Your task to perform on an android device: uninstall "VLC for Android" Image 0: 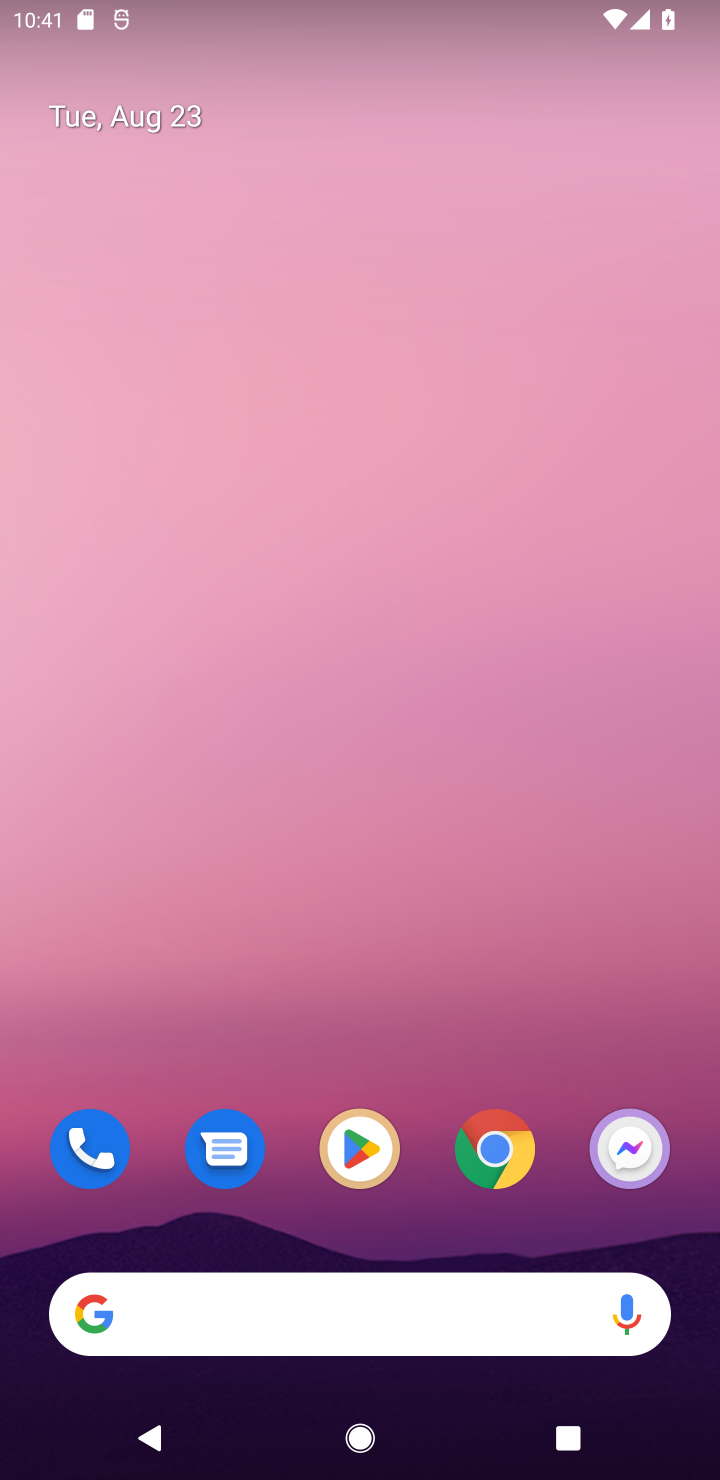
Step 0: drag from (273, 1245) to (241, 129)
Your task to perform on an android device: uninstall "VLC for Android" Image 1: 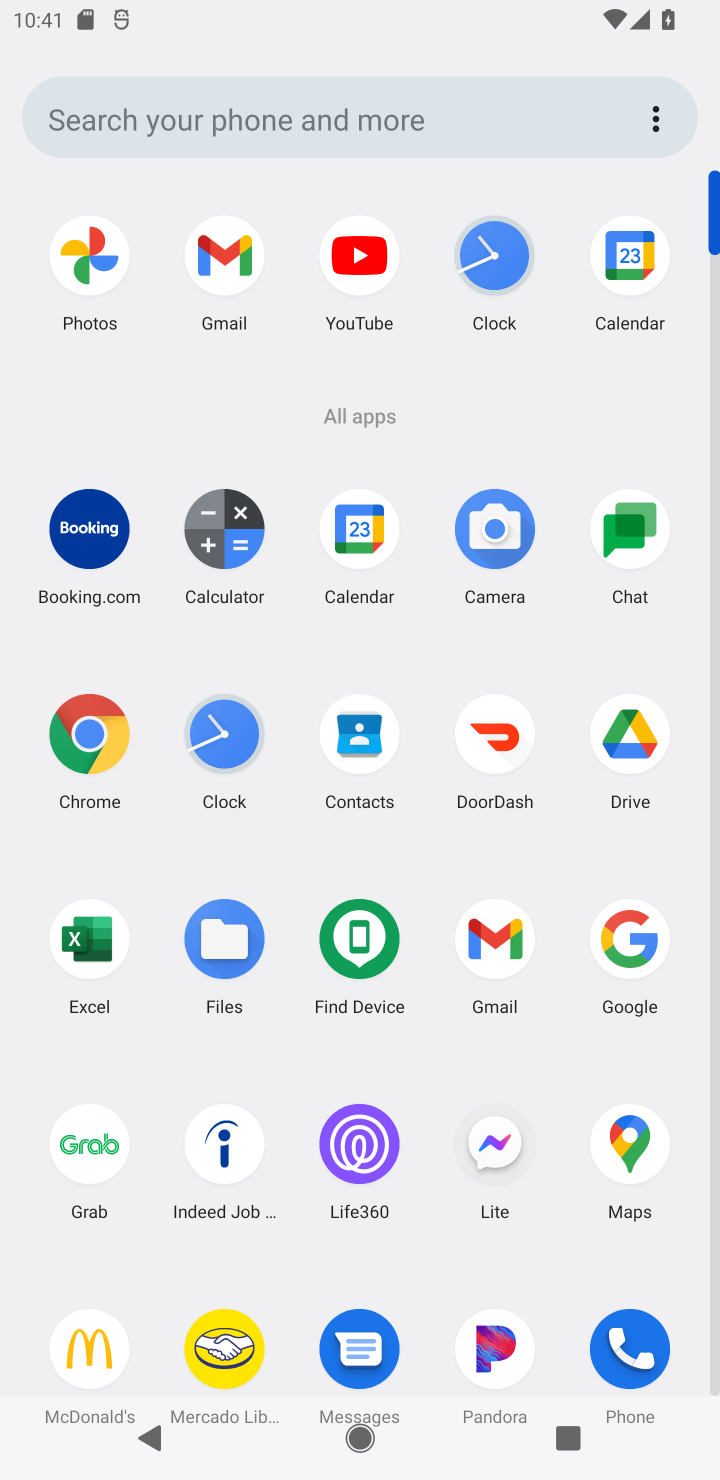
Step 1: task complete